Your task to perform on an android device: search for starred emails in the gmail app Image 0: 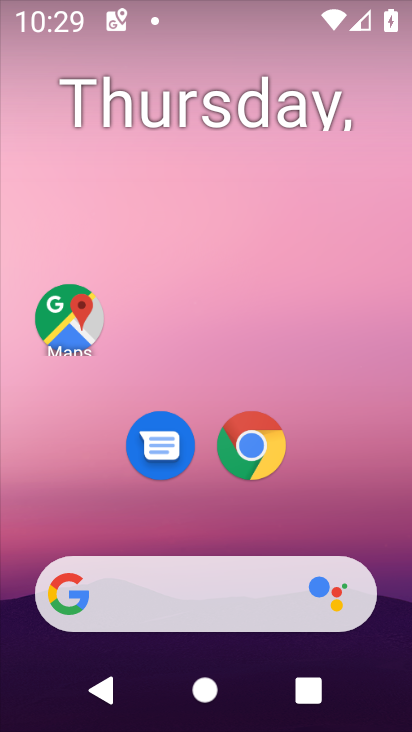
Step 0: drag from (377, 526) to (289, 28)
Your task to perform on an android device: search for starred emails in the gmail app Image 1: 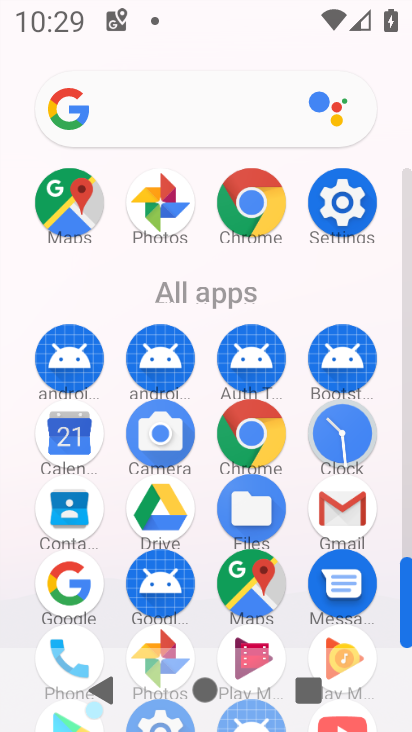
Step 1: click (356, 523)
Your task to perform on an android device: search for starred emails in the gmail app Image 2: 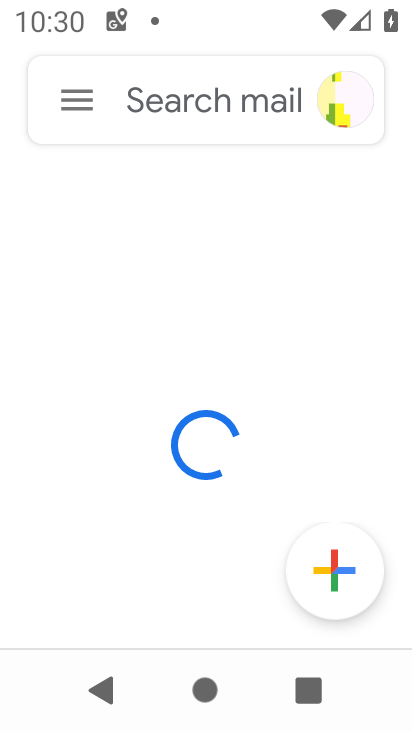
Step 2: click (75, 103)
Your task to perform on an android device: search for starred emails in the gmail app Image 3: 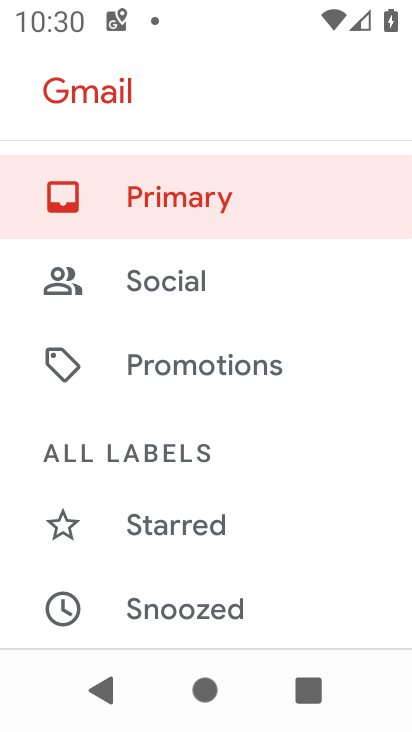
Step 3: click (173, 532)
Your task to perform on an android device: search for starred emails in the gmail app Image 4: 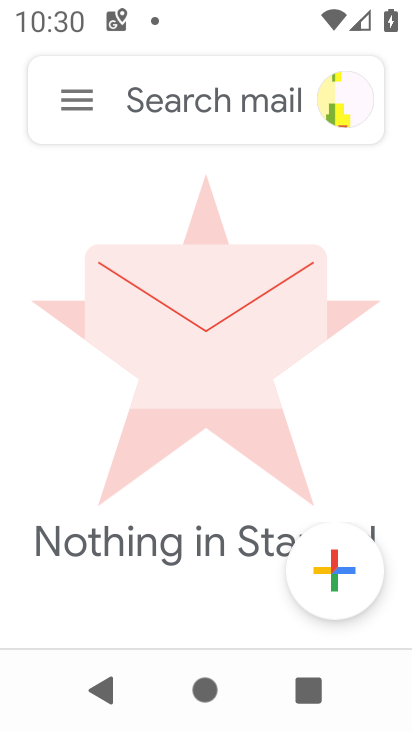
Step 4: task complete